Your task to perform on an android device: check android version Image 0: 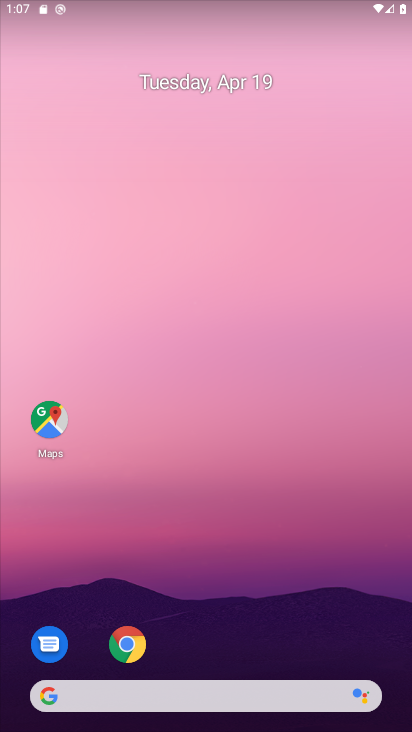
Step 0: drag from (216, 504) to (309, 105)
Your task to perform on an android device: check android version Image 1: 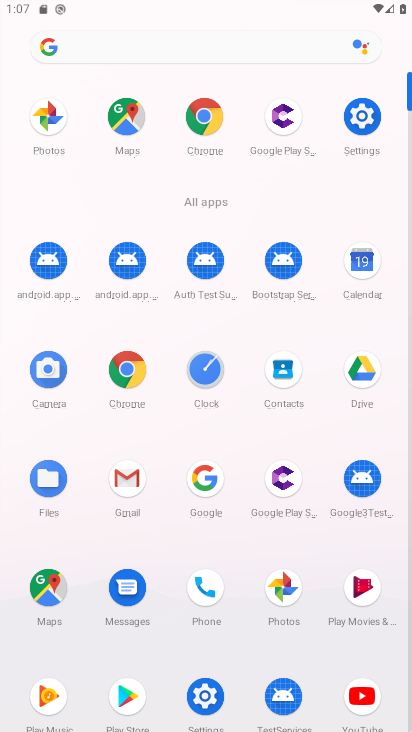
Step 1: click (361, 113)
Your task to perform on an android device: check android version Image 2: 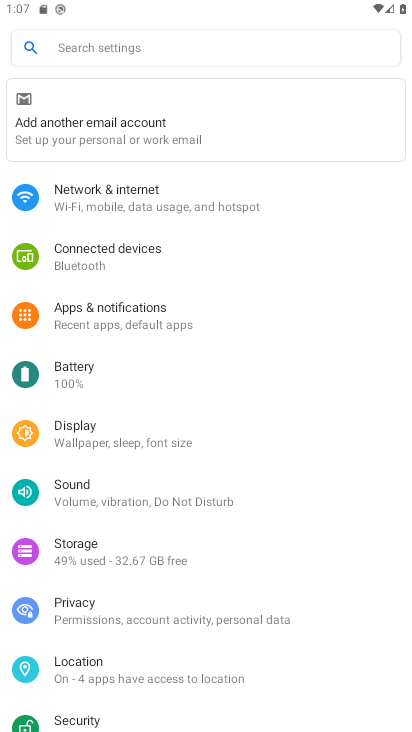
Step 2: drag from (107, 597) to (222, 57)
Your task to perform on an android device: check android version Image 3: 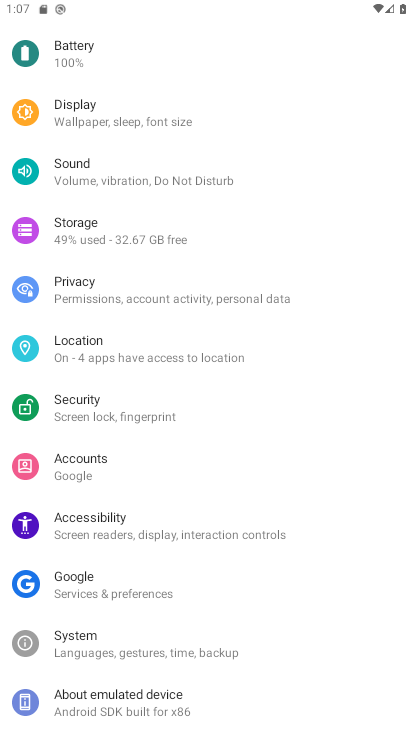
Step 3: click (107, 706)
Your task to perform on an android device: check android version Image 4: 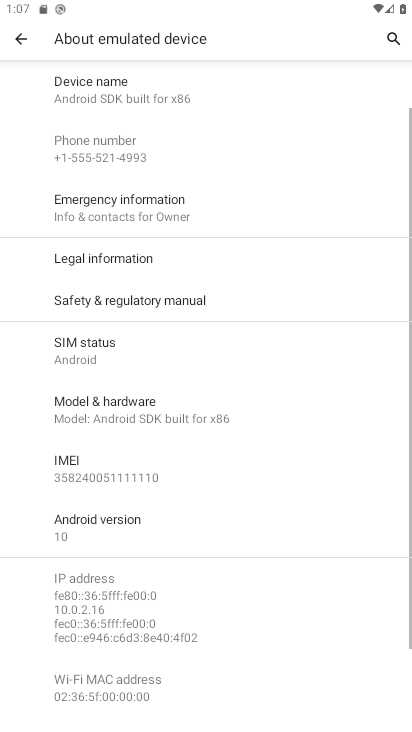
Step 4: click (97, 538)
Your task to perform on an android device: check android version Image 5: 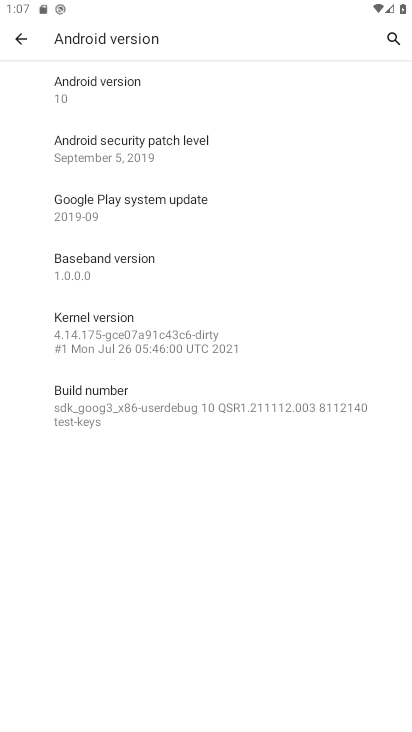
Step 5: task complete